Your task to perform on an android device: install app "eBay: The shopping marketplace" Image 0: 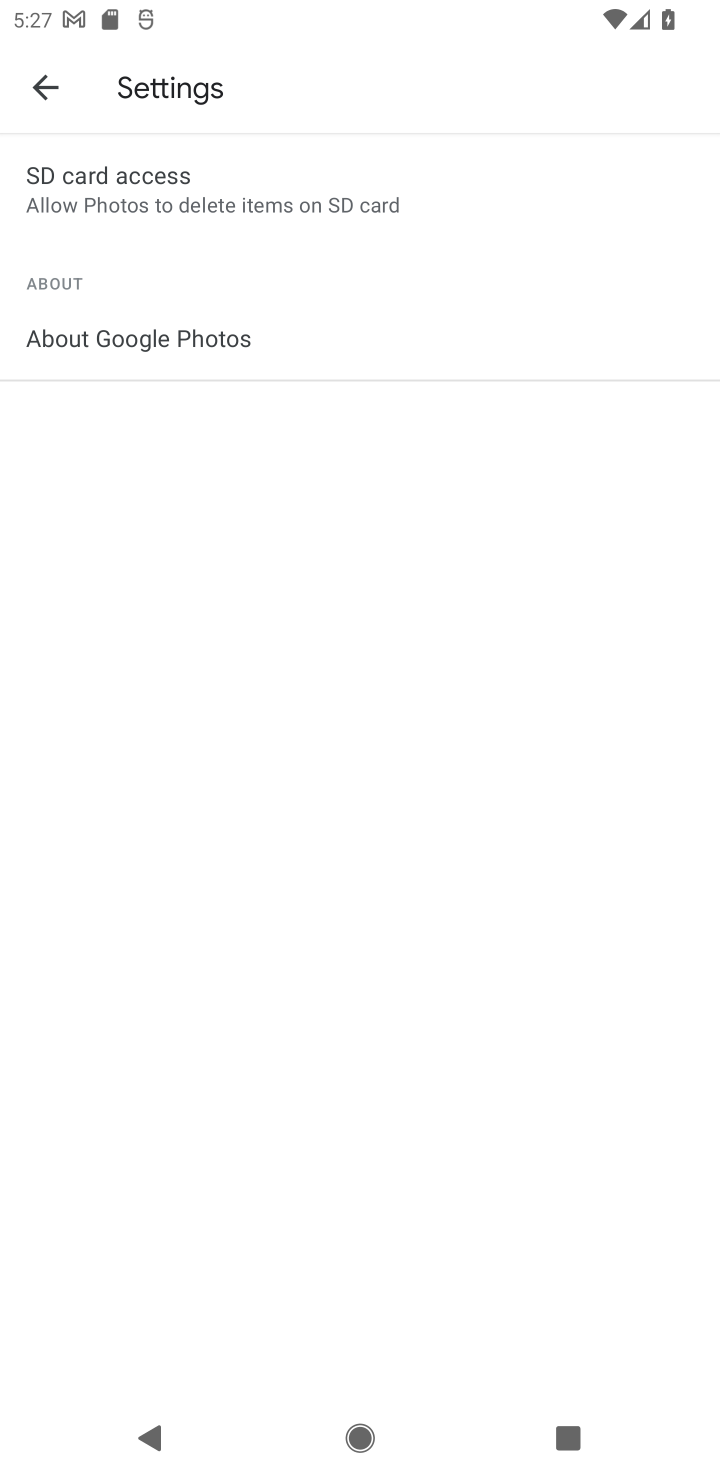
Step 0: press home button
Your task to perform on an android device: install app "eBay: The shopping marketplace" Image 1: 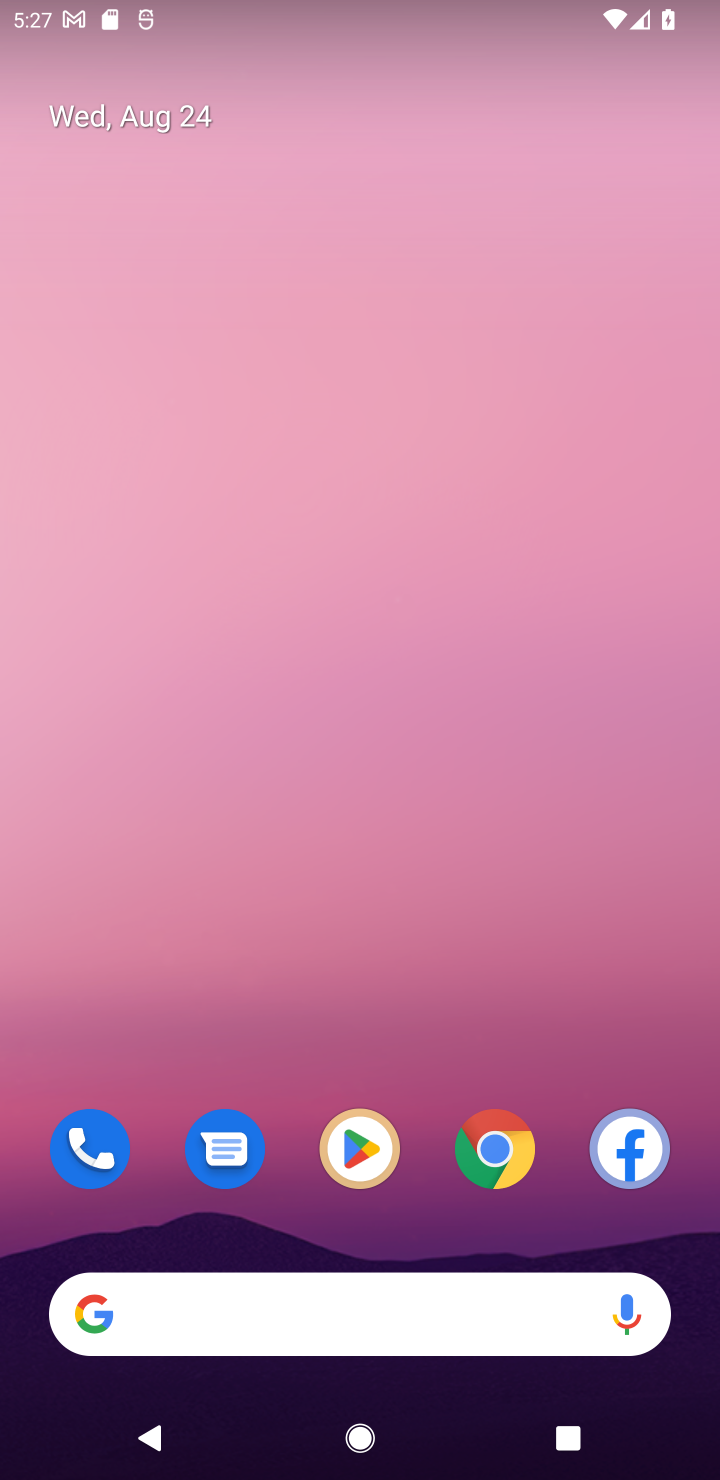
Step 1: click (370, 1145)
Your task to perform on an android device: install app "eBay: The shopping marketplace" Image 2: 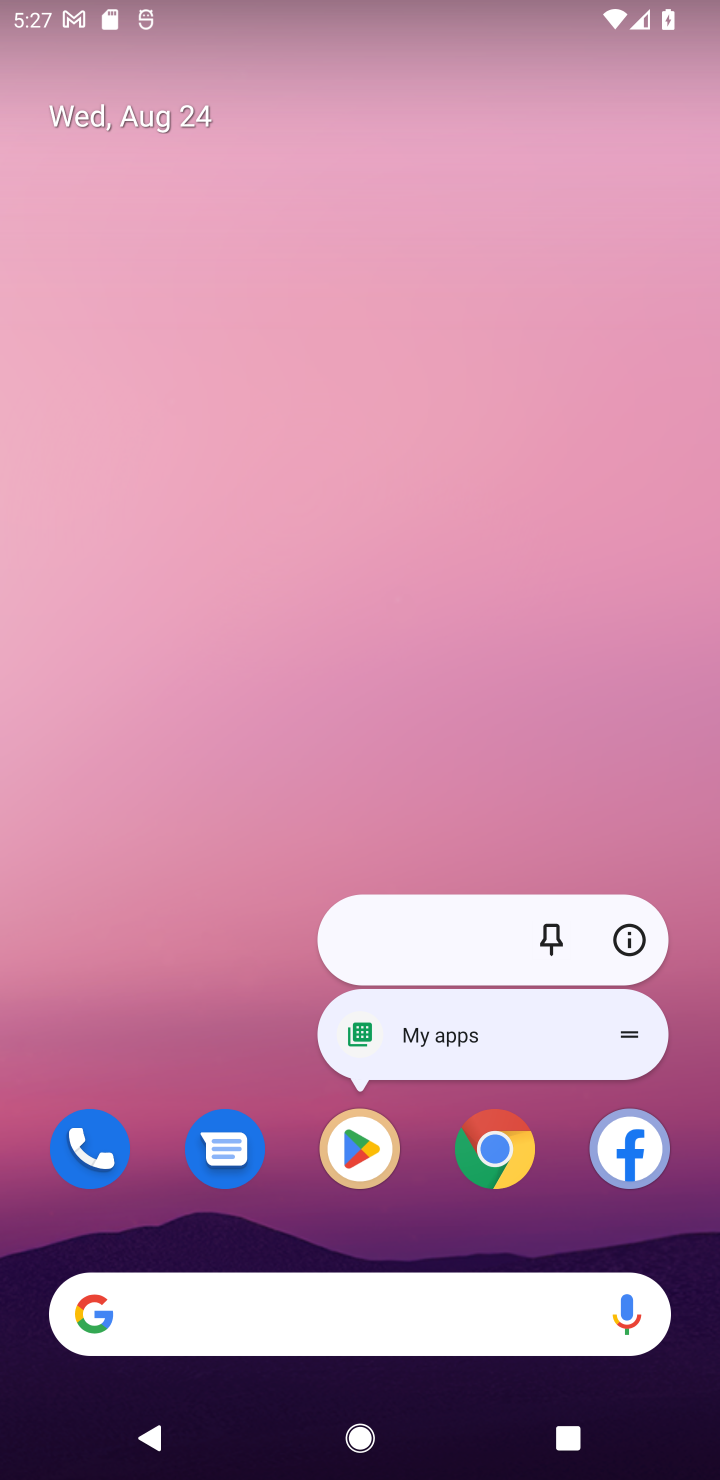
Step 2: click (347, 1155)
Your task to perform on an android device: install app "eBay: The shopping marketplace" Image 3: 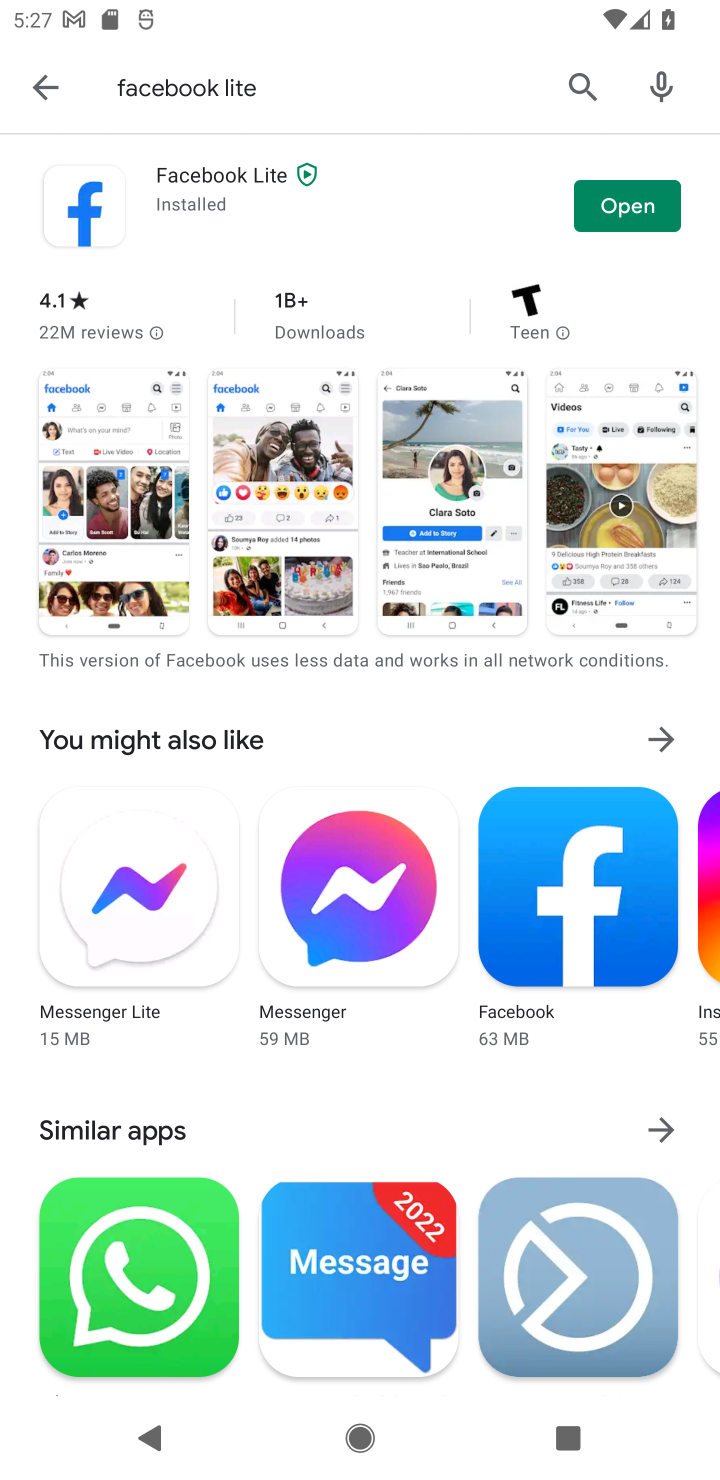
Step 3: click (585, 84)
Your task to perform on an android device: install app "eBay: The shopping marketplace" Image 4: 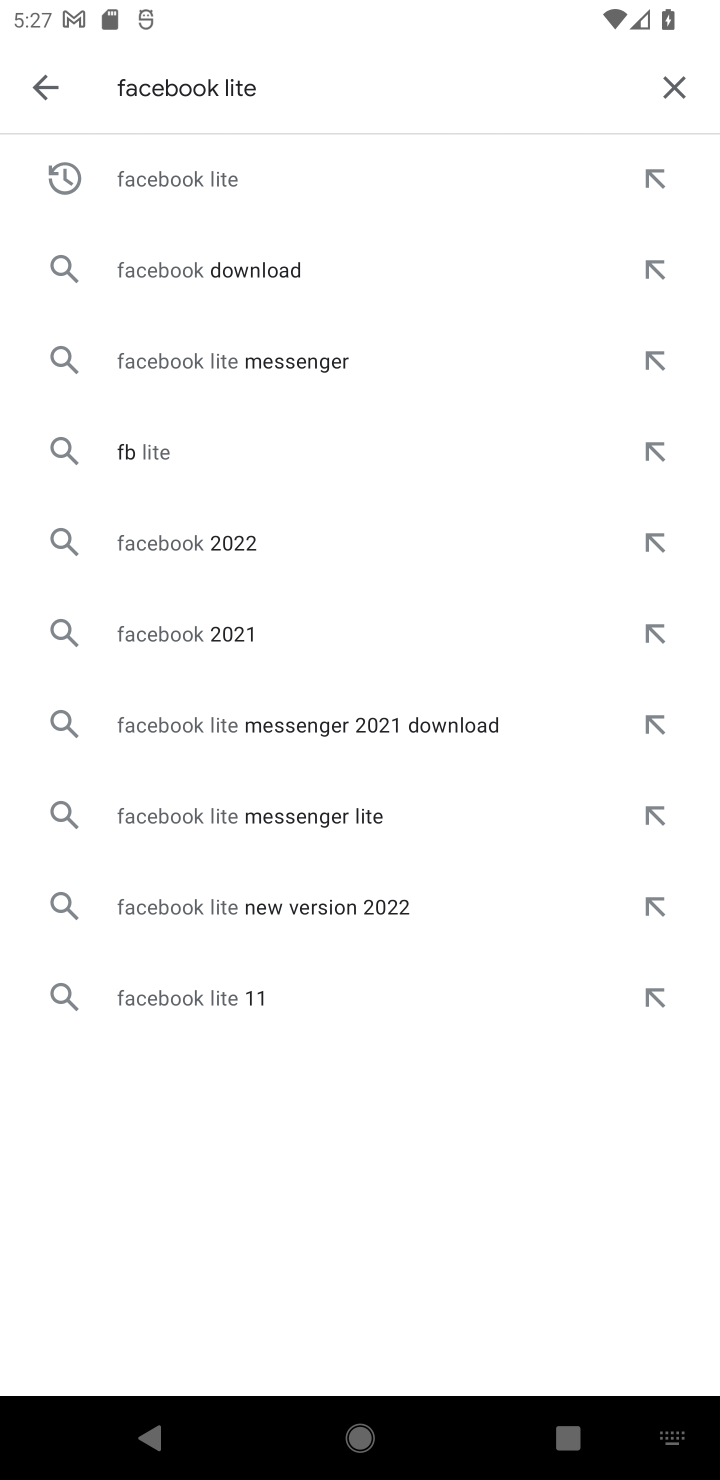
Step 4: click (682, 71)
Your task to perform on an android device: install app "eBay: The shopping marketplace" Image 5: 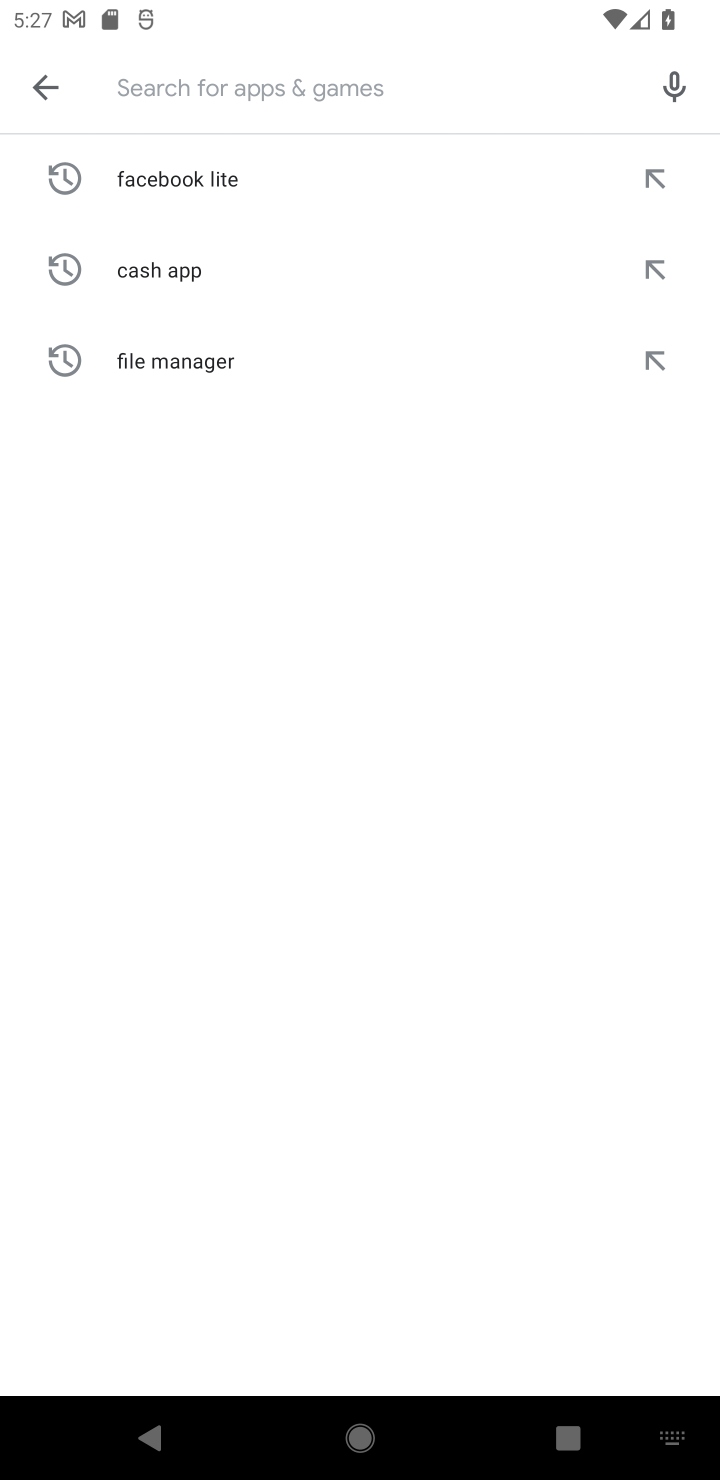
Step 5: type "eBay: The shopping marketplace"
Your task to perform on an android device: install app "eBay: The shopping marketplace" Image 6: 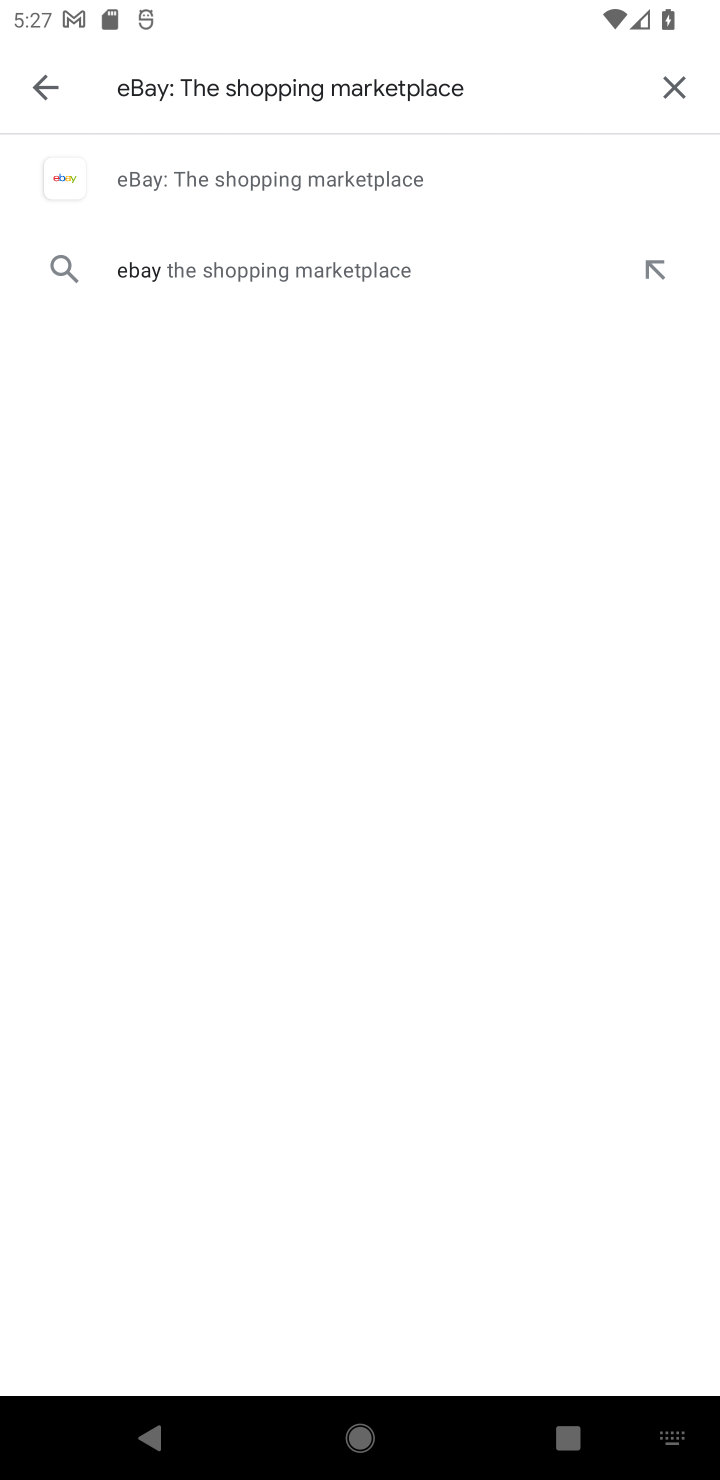
Step 6: click (278, 180)
Your task to perform on an android device: install app "eBay: The shopping marketplace" Image 7: 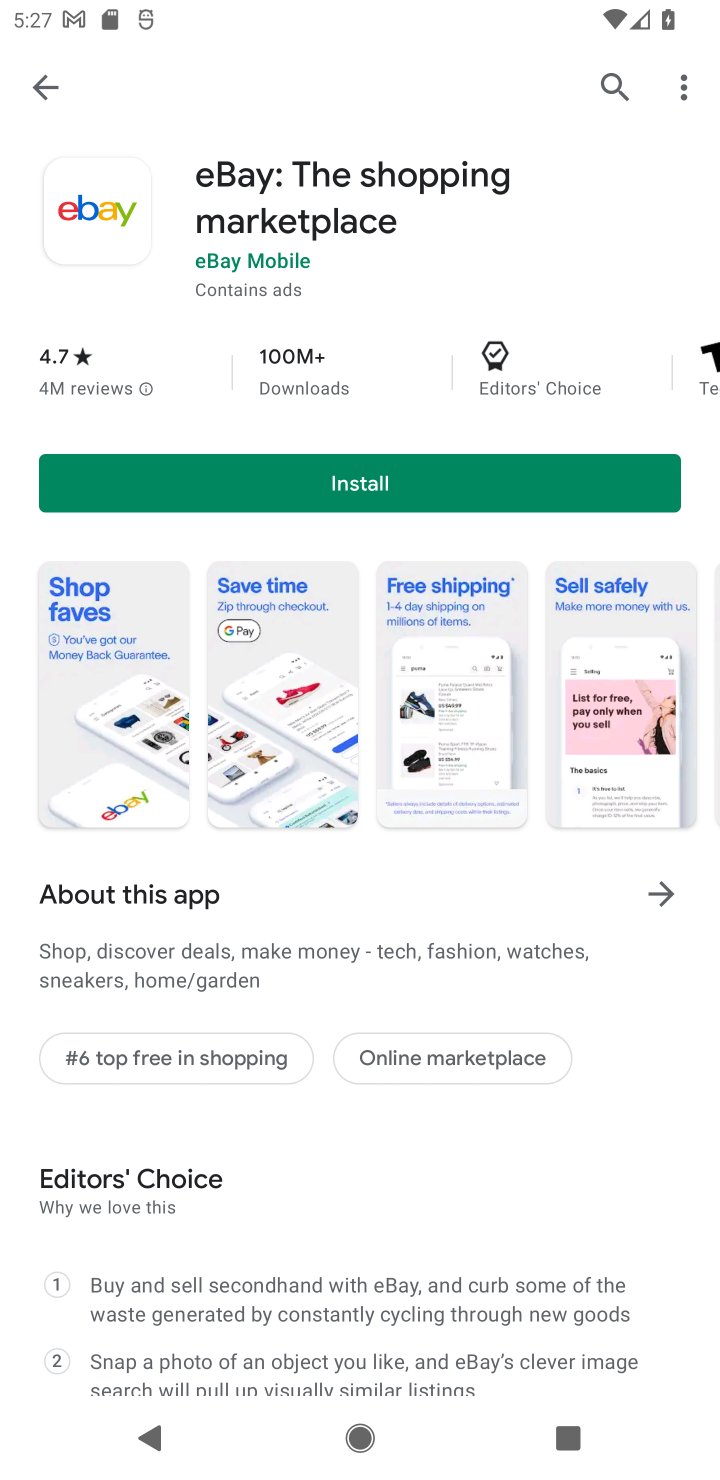
Step 7: click (413, 485)
Your task to perform on an android device: install app "eBay: The shopping marketplace" Image 8: 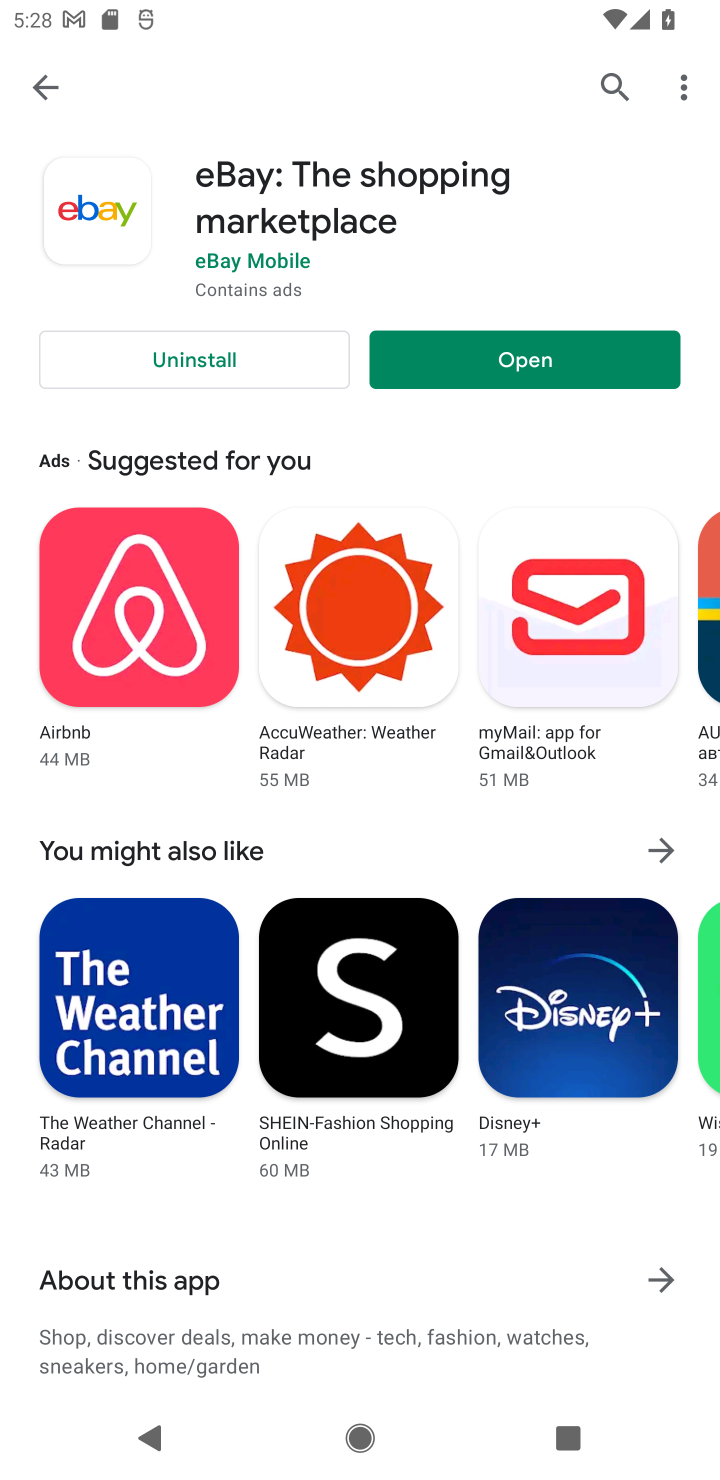
Step 8: task complete